Your task to perform on an android device: Set the phone to "Do not disturb". Image 0: 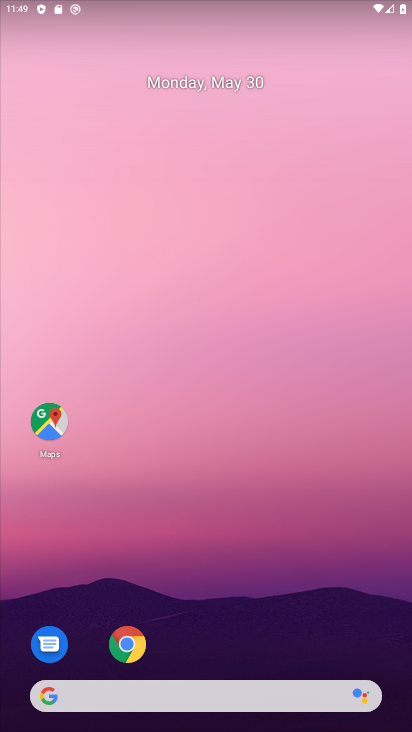
Step 0: drag from (236, 633) to (271, 85)
Your task to perform on an android device: Set the phone to "Do not disturb". Image 1: 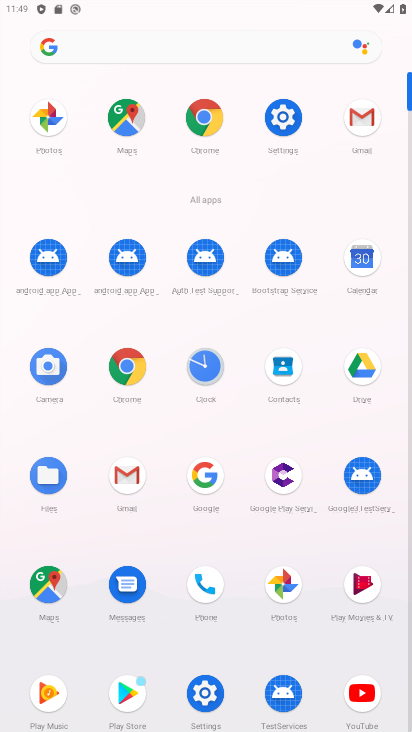
Step 1: click (276, 127)
Your task to perform on an android device: Set the phone to "Do not disturb". Image 2: 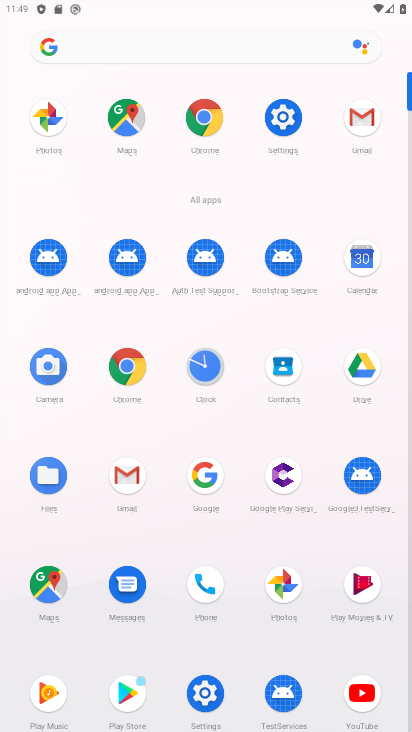
Step 2: click (276, 127)
Your task to perform on an android device: Set the phone to "Do not disturb". Image 3: 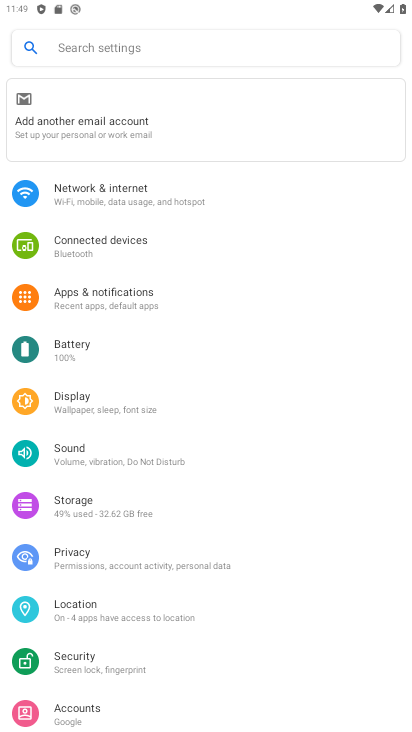
Step 3: click (166, 302)
Your task to perform on an android device: Set the phone to "Do not disturb". Image 4: 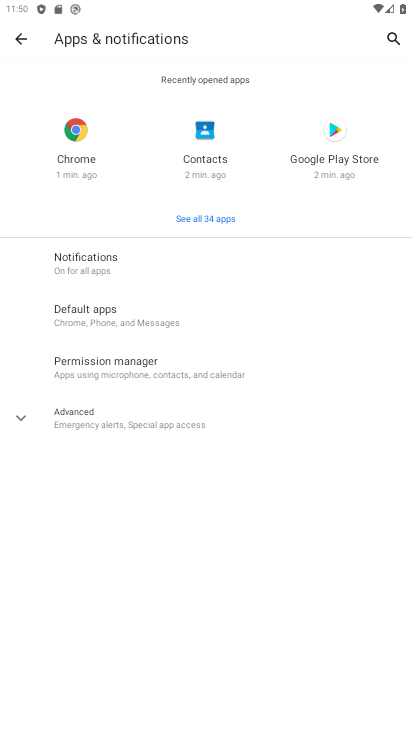
Step 4: drag from (190, 290) to (238, 637)
Your task to perform on an android device: Set the phone to "Do not disturb". Image 5: 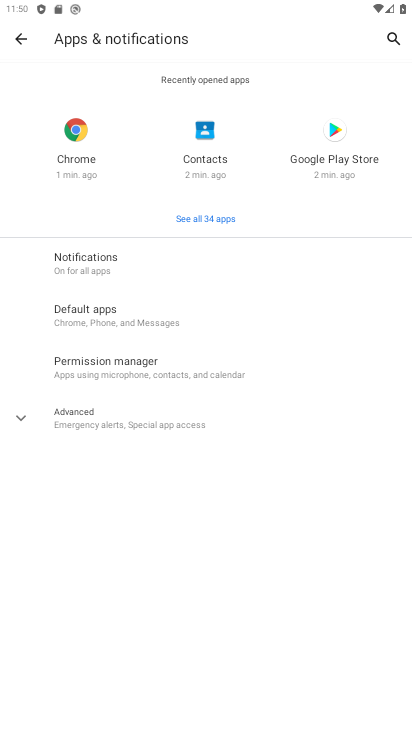
Step 5: click (151, 258)
Your task to perform on an android device: Set the phone to "Do not disturb". Image 6: 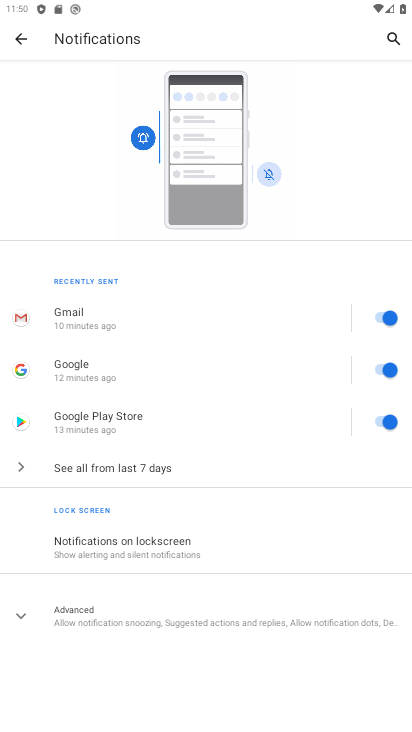
Step 6: click (86, 604)
Your task to perform on an android device: Set the phone to "Do not disturb". Image 7: 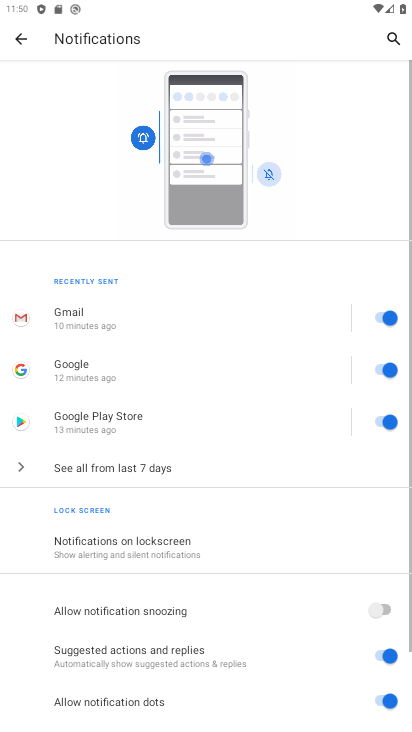
Step 7: drag from (158, 571) to (196, 178)
Your task to perform on an android device: Set the phone to "Do not disturb". Image 8: 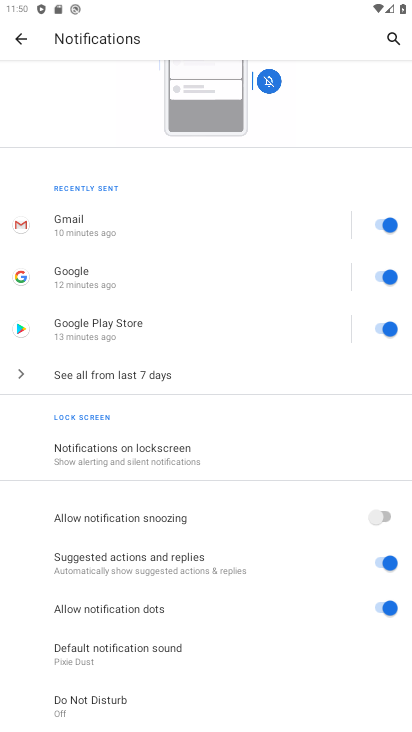
Step 8: click (85, 704)
Your task to perform on an android device: Set the phone to "Do not disturb". Image 9: 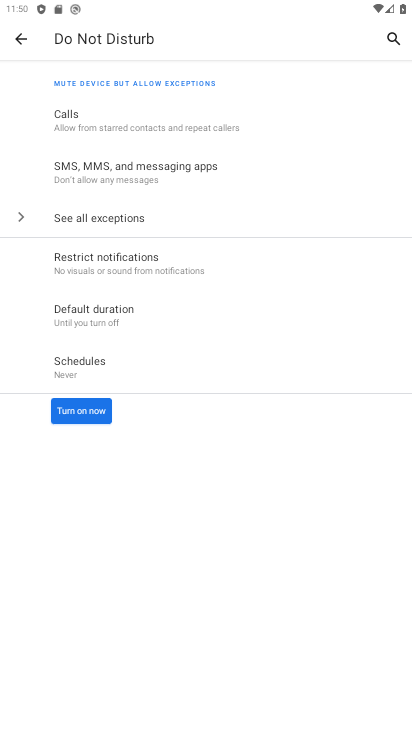
Step 9: click (83, 420)
Your task to perform on an android device: Set the phone to "Do not disturb". Image 10: 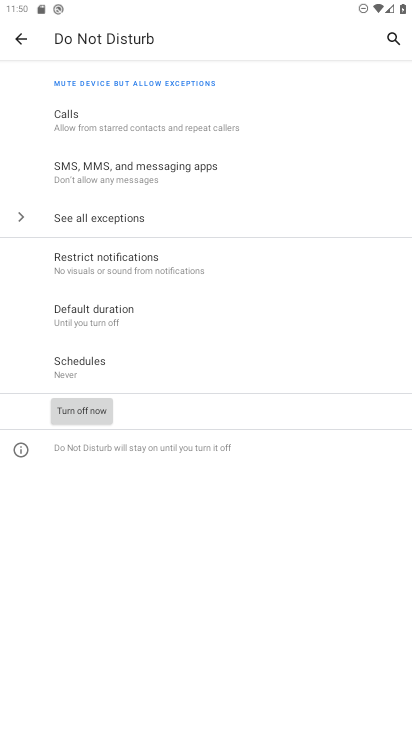
Step 10: task complete